Your task to perform on an android device: turn off javascript in the chrome app Image 0: 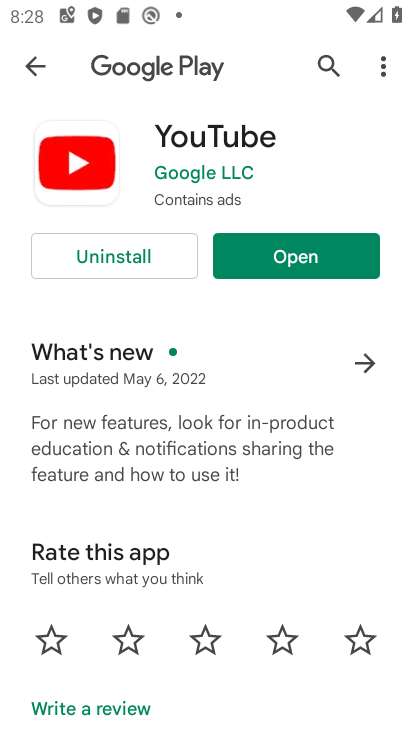
Step 0: press home button
Your task to perform on an android device: turn off javascript in the chrome app Image 1: 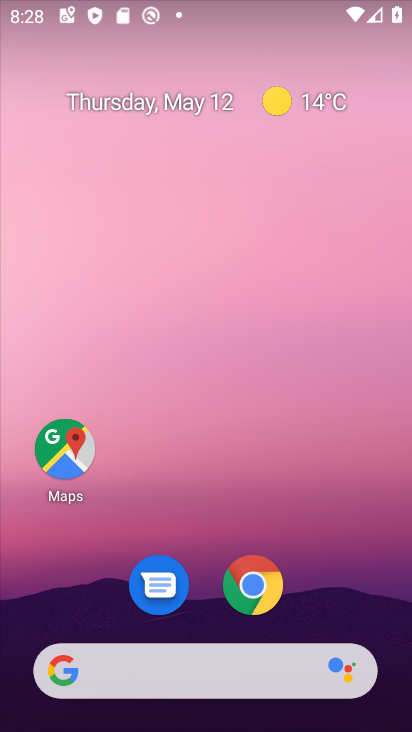
Step 1: click (257, 579)
Your task to perform on an android device: turn off javascript in the chrome app Image 2: 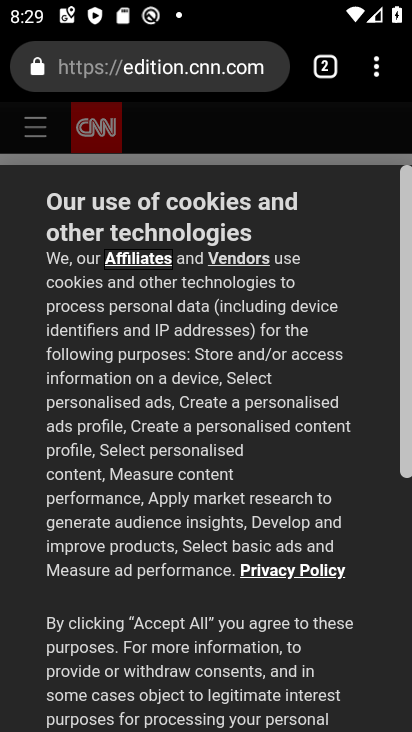
Step 2: click (376, 71)
Your task to perform on an android device: turn off javascript in the chrome app Image 3: 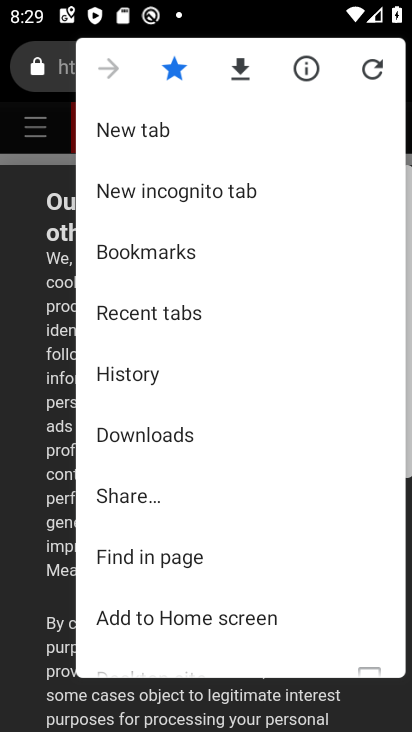
Step 3: drag from (272, 598) to (263, 150)
Your task to perform on an android device: turn off javascript in the chrome app Image 4: 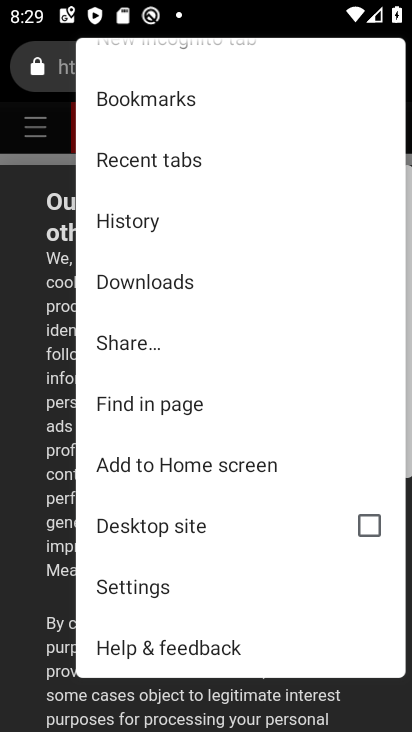
Step 4: click (155, 573)
Your task to perform on an android device: turn off javascript in the chrome app Image 5: 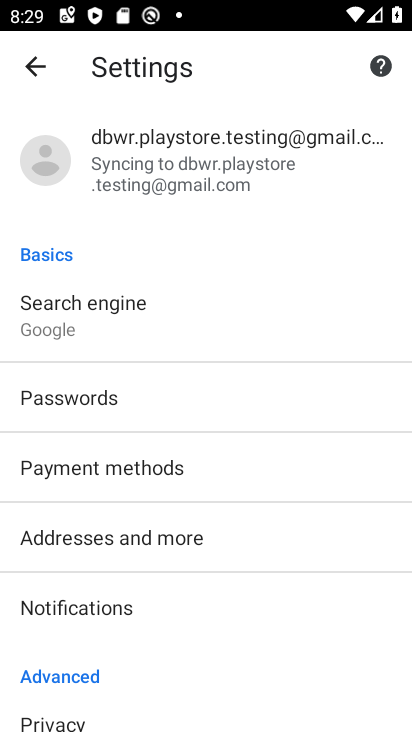
Step 5: drag from (161, 611) to (185, 186)
Your task to perform on an android device: turn off javascript in the chrome app Image 6: 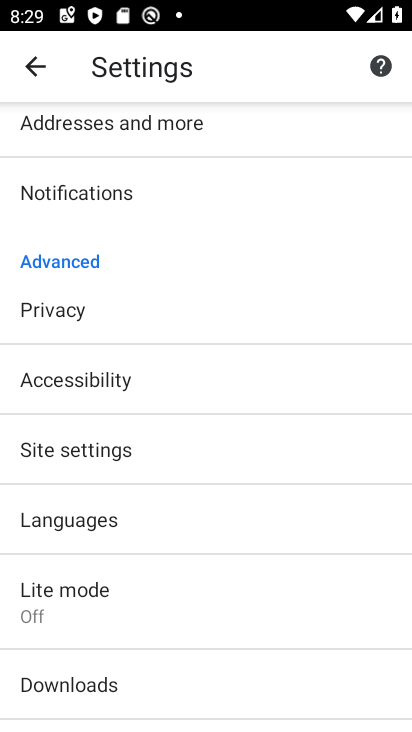
Step 6: click (121, 442)
Your task to perform on an android device: turn off javascript in the chrome app Image 7: 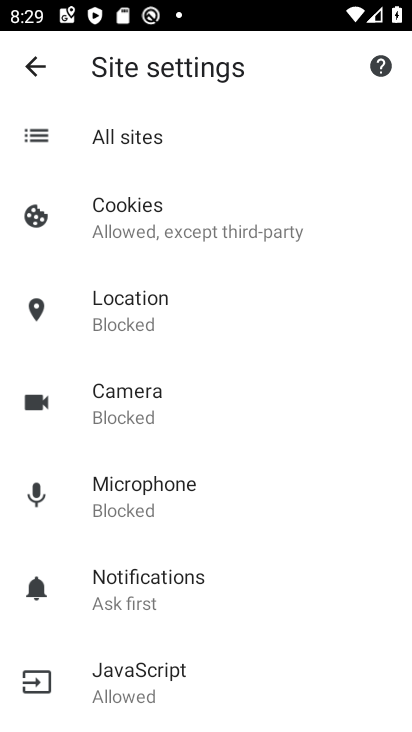
Step 7: drag from (261, 523) to (258, 331)
Your task to perform on an android device: turn off javascript in the chrome app Image 8: 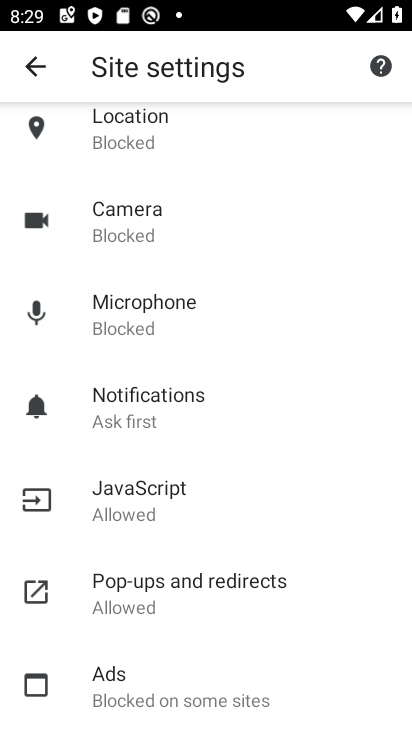
Step 8: click (205, 508)
Your task to perform on an android device: turn off javascript in the chrome app Image 9: 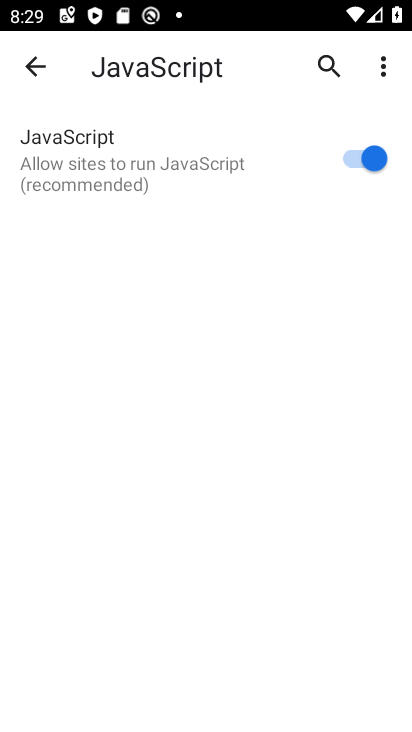
Step 9: click (348, 149)
Your task to perform on an android device: turn off javascript in the chrome app Image 10: 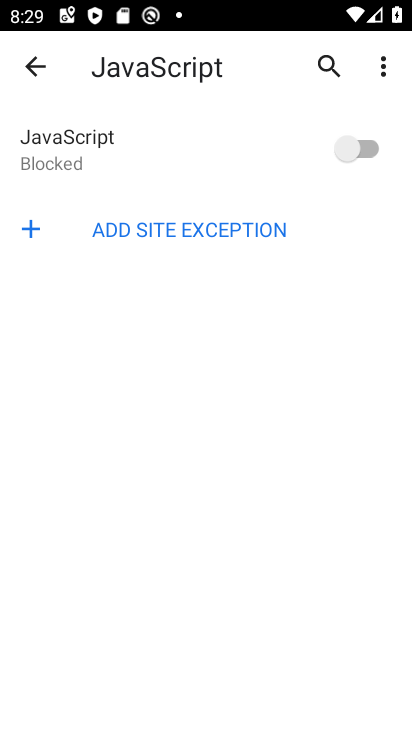
Step 10: task complete